Your task to perform on an android device: see creations saved in the google photos Image 0: 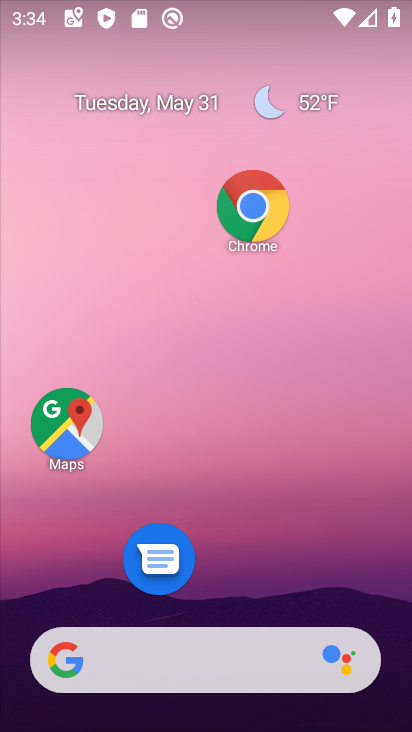
Step 0: drag from (215, 590) to (185, 227)
Your task to perform on an android device: see creations saved in the google photos Image 1: 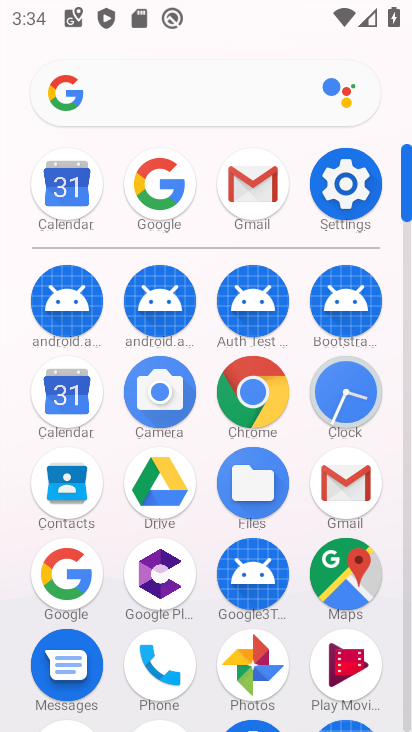
Step 1: drag from (207, 605) to (219, 373)
Your task to perform on an android device: see creations saved in the google photos Image 2: 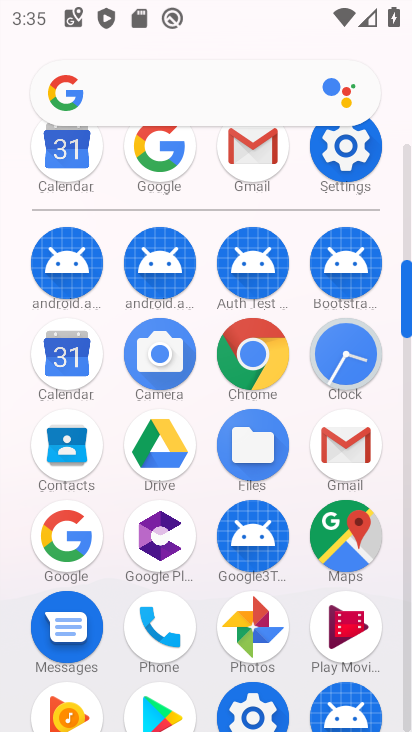
Step 2: click (251, 603)
Your task to perform on an android device: see creations saved in the google photos Image 3: 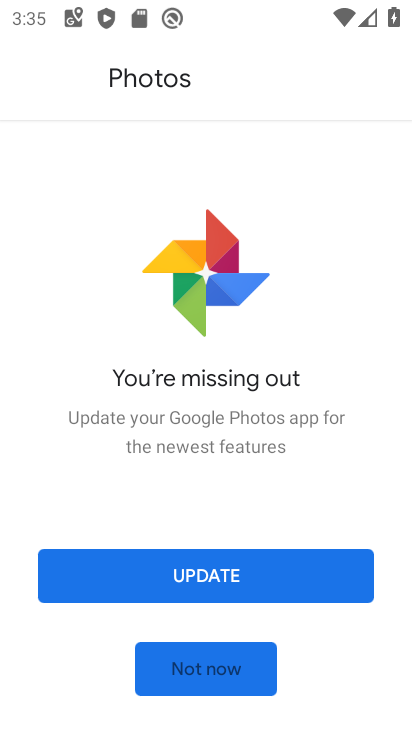
Step 3: click (230, 676)
Your task to perform on an android device: see creations saved in the google photos Image 4: 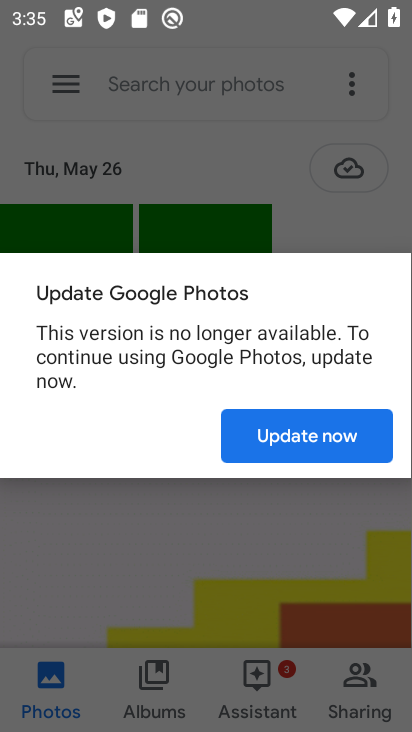
Step 4: click (294, 424)
Your task to perform on an android device: see creations saved in the google photos Image 5: 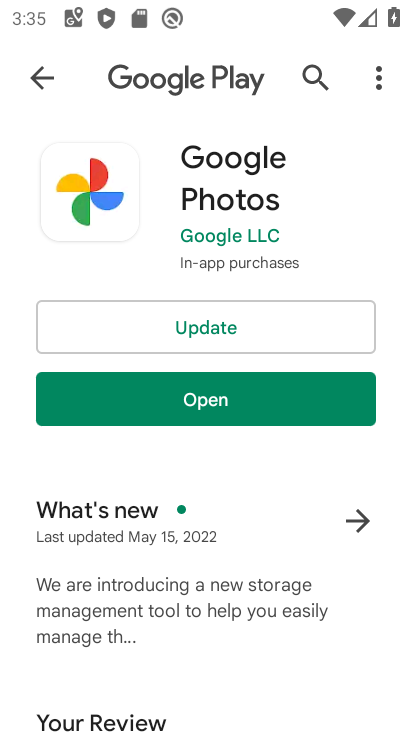
Step 5: click (230, 397)
Your task to perform on an android device: see creations saved in the google photos Image 6: 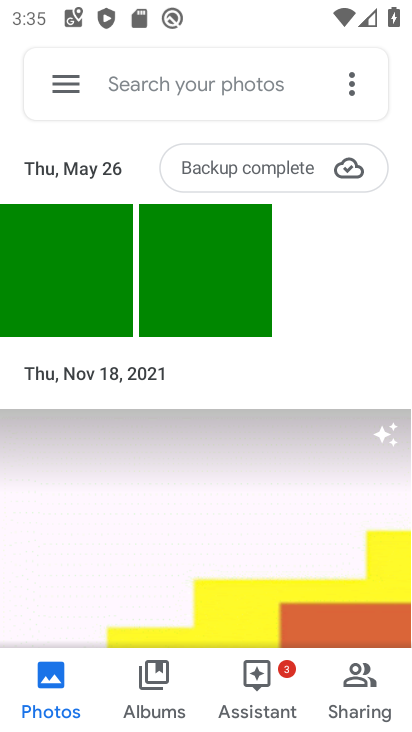
Step 6: click (189, 96)
Your task to perform on an android device: see creations saved in the google photos Image 7: 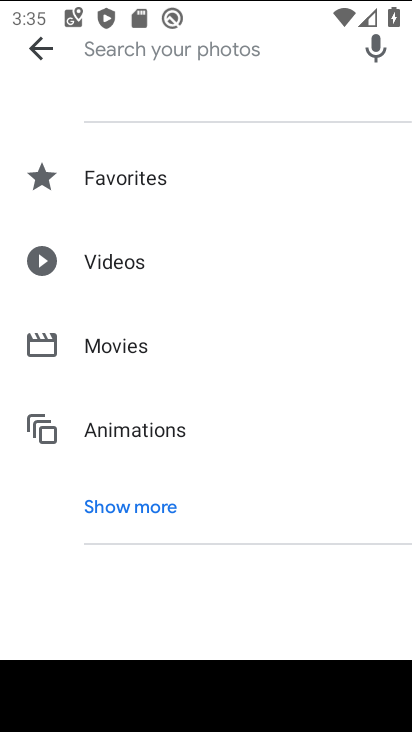
Step 7: click (136, 516)
Your task to perform on an android device: see creations saved in the google photos Image 8: 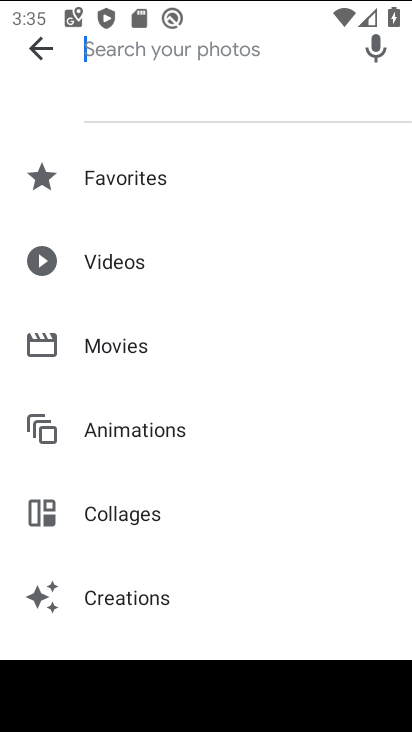
Step 8: drag from (136, 508) to (188, 280)
Your task to perform on an android device: see creations saved in the google photos Image 9: 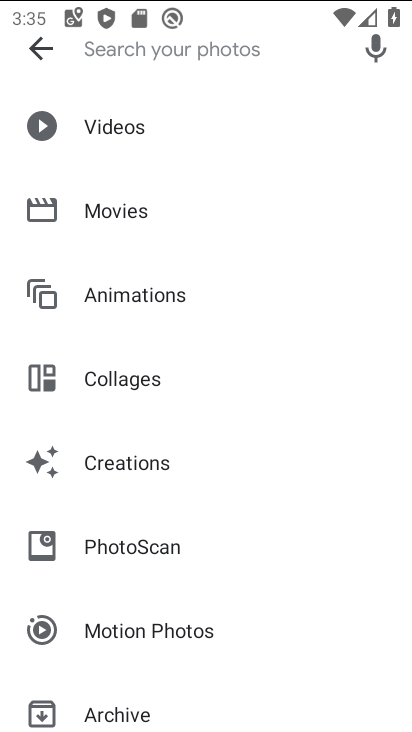
Step 9: click (147, 465)
Your task to perform on an android device: see creations saved in the google photos Image 10: 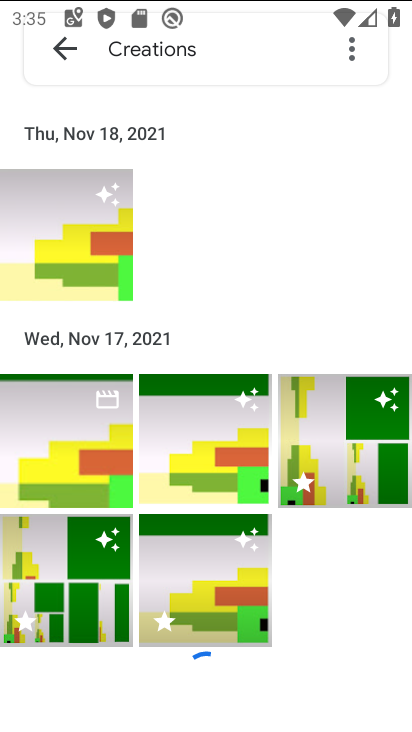
Step 10: task complete